Your task to perform on an android device: Show me popular videos on Youtube Image 0: 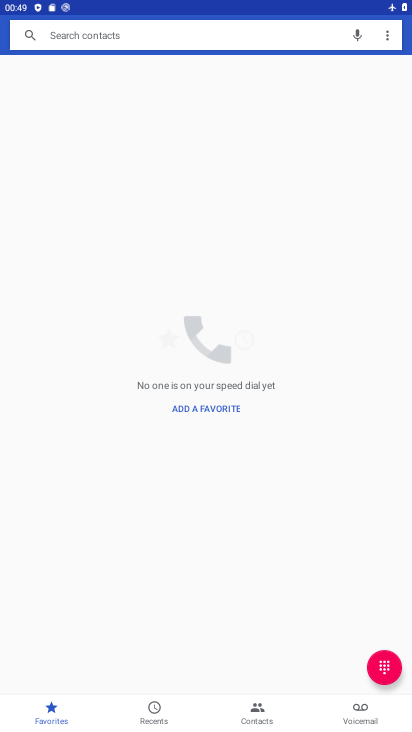
Step 0: press home button
Your task to perform on an android device: Show me popular videos on Youtube Image 1: 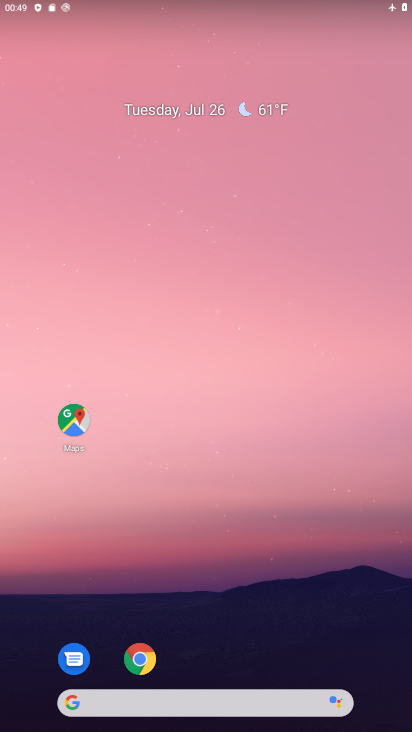
Step 1: drag from (257, 571) to (243, 0)
Your task to perform on an android device: Show me popular videos on Youtube Image 2: 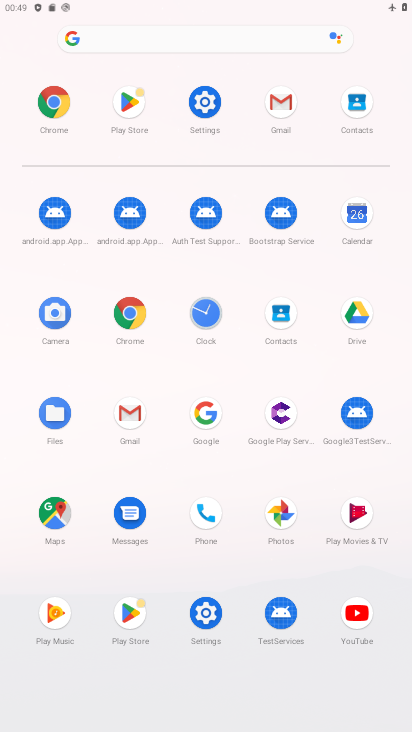
Step 2: click (362, 615)
Your task to perform on an android device: Show me popular videos on Youtube Image 3: 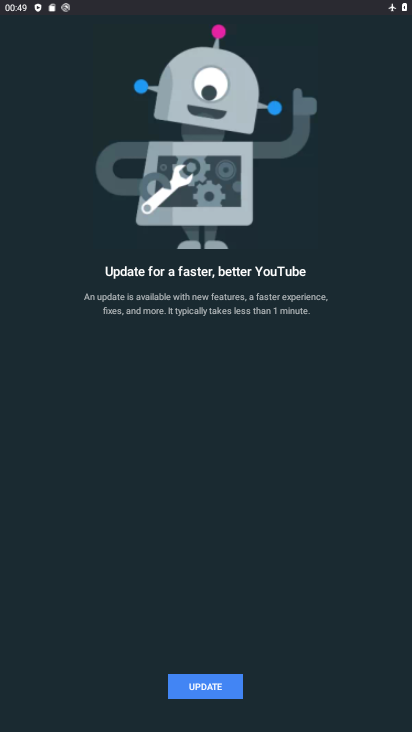
Step 3: click (220, 685)
Your task to perform on an android device: Show me popular videos on Youtube Image 4: 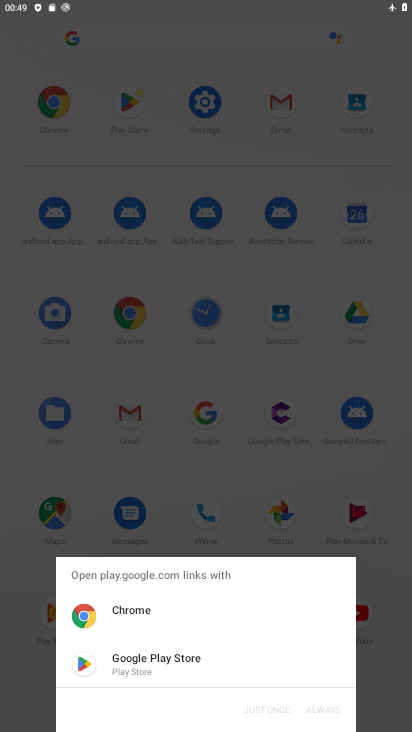
Step 4: click (179, 662)
Your task to perform on an android device: Show me popular videos on Youtube Image 5: 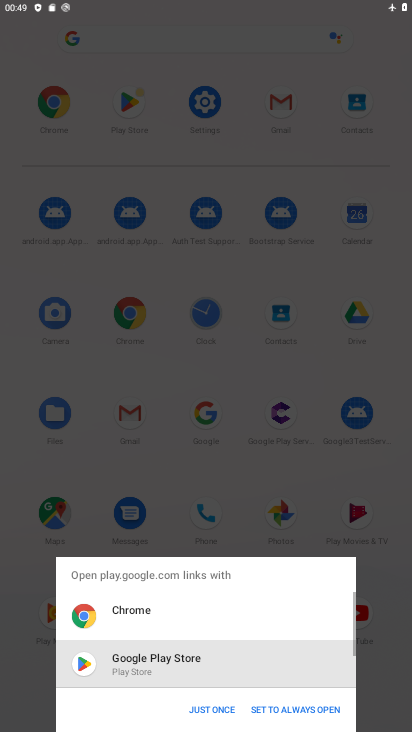
Step 5: click (209, 708)
Your task to perform on an android device: Show me popular videos on Youtube Image 6: 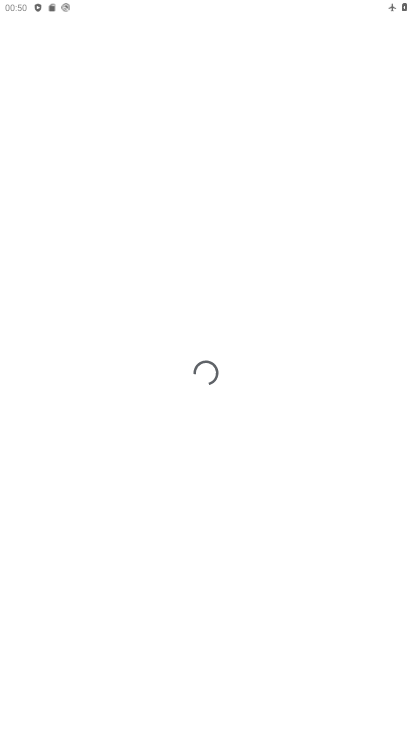
Step 6: task complete